Your task to perform on an android device: change the upload size in google photos Image 0: 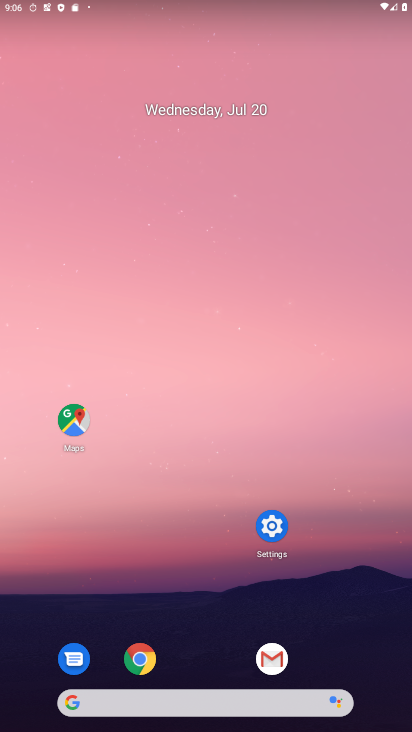
Step 0: drag from (290, 715) to (181, 163)
Your task to perform on an android device: change the upload size in google photos Image 1: 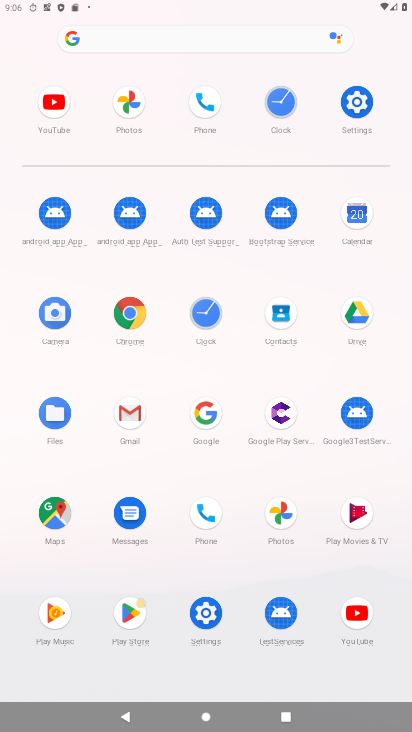
Step 1: click (282, 506)
Your task to perform on an android device: change the upload size in google photos Image 2: 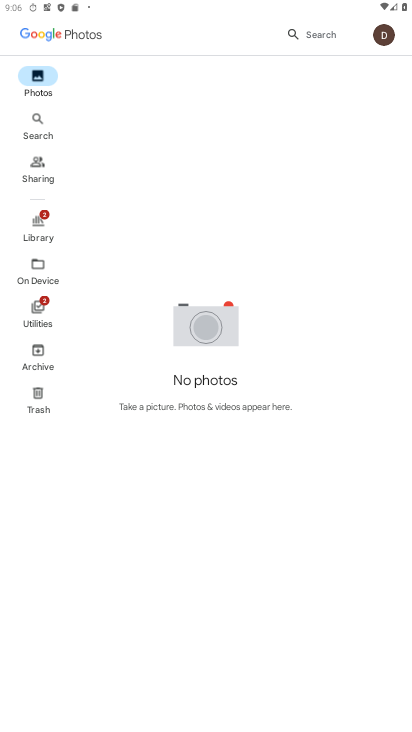
Step 2: click (387, 30)
Your task to perform on an android device: change the upload size in google photos Image 3: 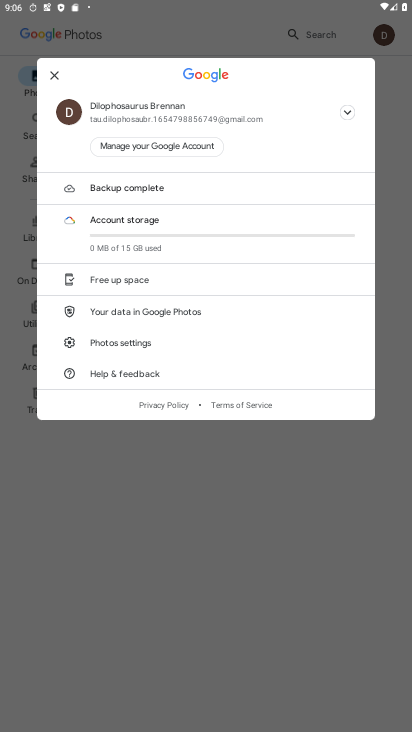
Step 3: click (144, 339)
Your task to perform on an android device: change the upload size in google photos Image 4: 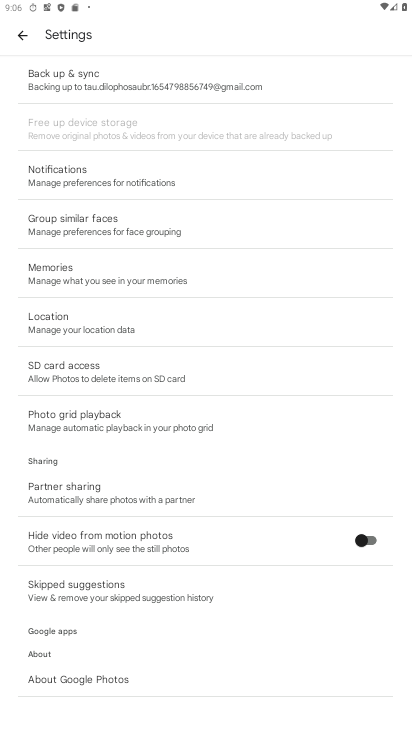
Step 4: click (108, 83)
Your task to perform on an android device: change the upload size in google photos Image 5: 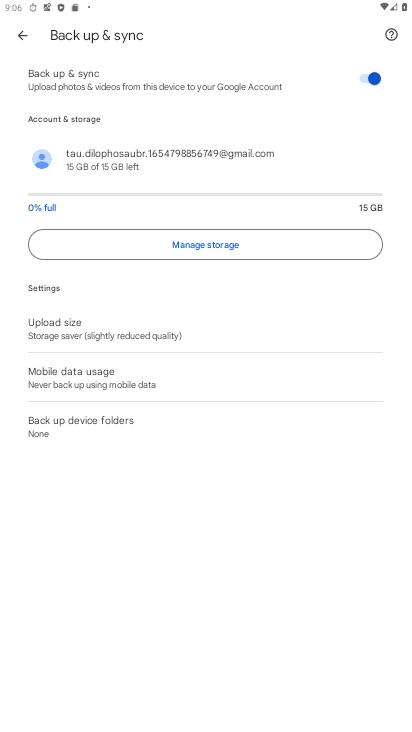
Step 5: click (84, 337)
Your task to perform on an android device: change the upload size in google photos Image 6: 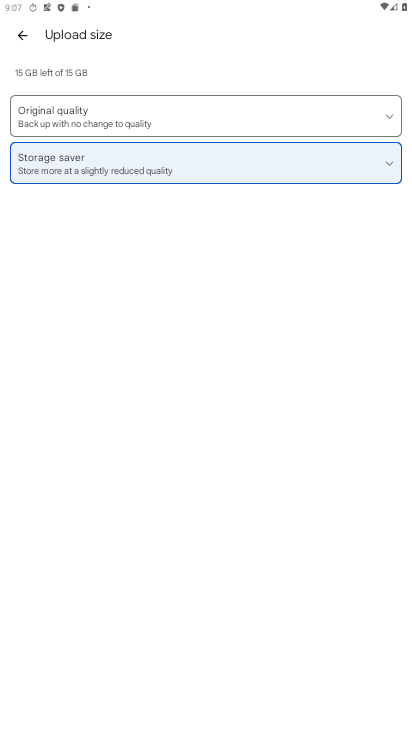
Step 6: task complete